Your task to perform on an android device: see creations saved in the google photos Image 0: 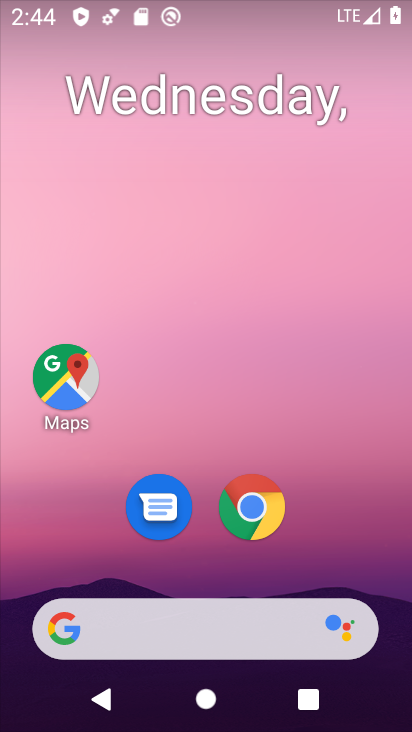
Step 0: drag from (302, 559) to (281, 83)
Your task to perform on an android device: see creations saved in the google photos Image 1: 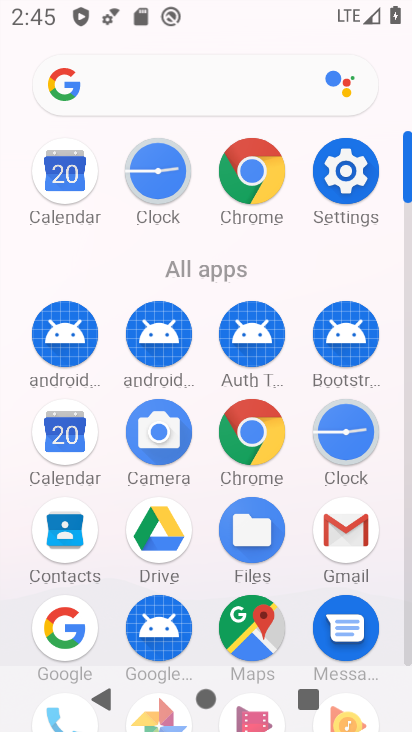
Step 1: drag from (196, 660) to (193, 376)
Your task to perform on an android device: see creations saved in the google photos Image 2: 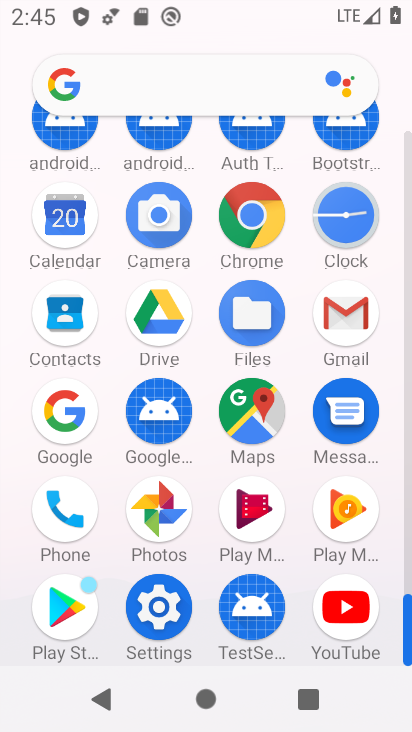
Step 2: click (153, 501)
Your task to perform on an android device: see creations saved in the google photos Image 3: 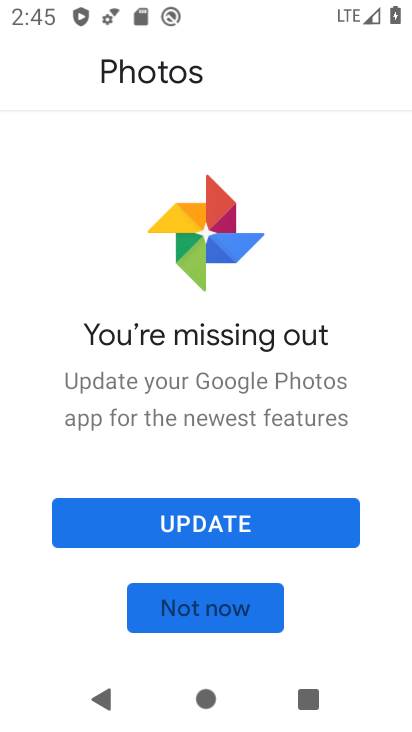
Step 3: click (215, 529)
Your task to perform on an android device: see creations saved in the google photos Image 4: 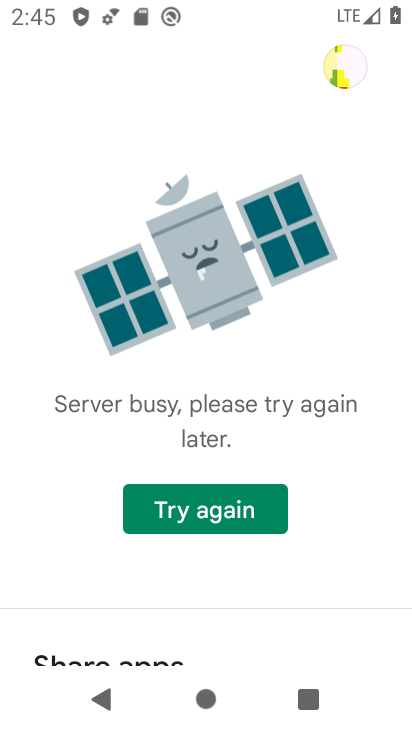
Step 4: click (238, 505)
Your task to perform on an android device: see creations saved in the google photos Image 5: 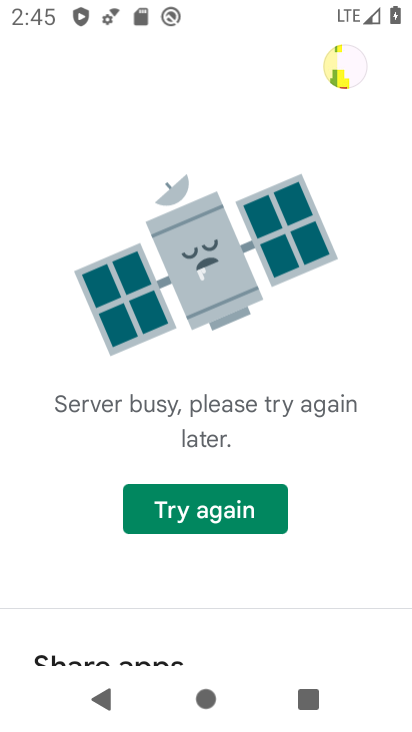
Step 5: press back button
Your task to perform on an android device: see creations saved in the google photos Image 6: 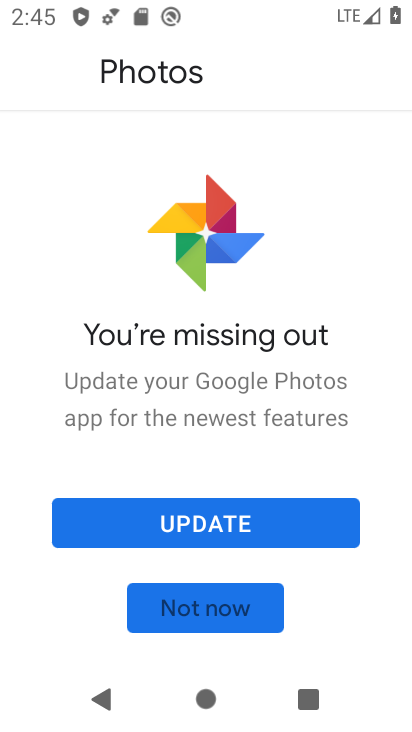
Step 6: click (245, 616)
Your task to perform on an android device: see creations saved in the google photos Image 7: 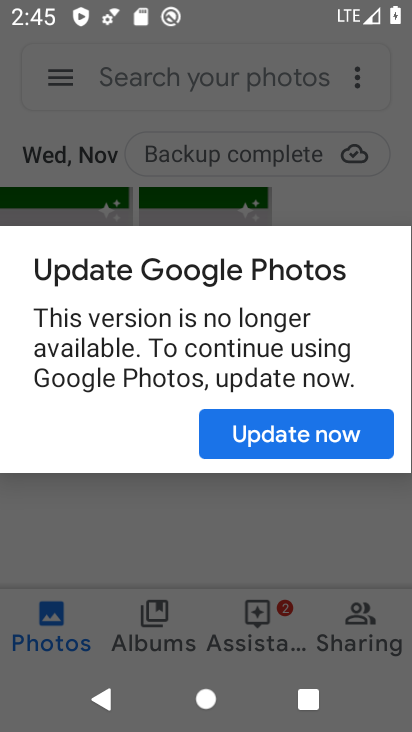
Step 7: click (308, 509)
Your task to perform on an android device: see creations saved in the google photos Image 8: 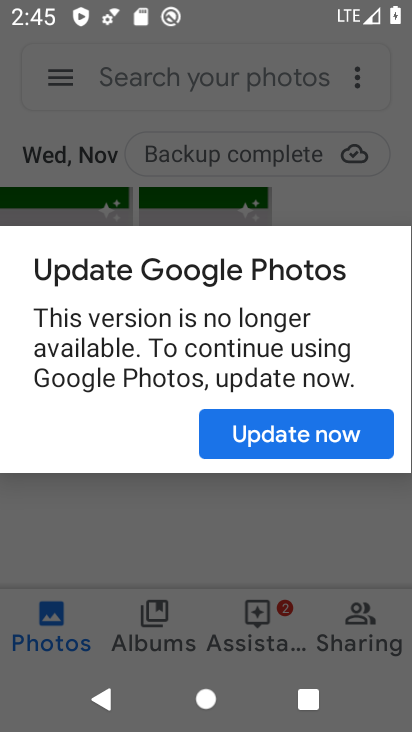
Step 8: click (310, 510)
Your task to perform on an android device: see creations saved in the google photos Image 9: 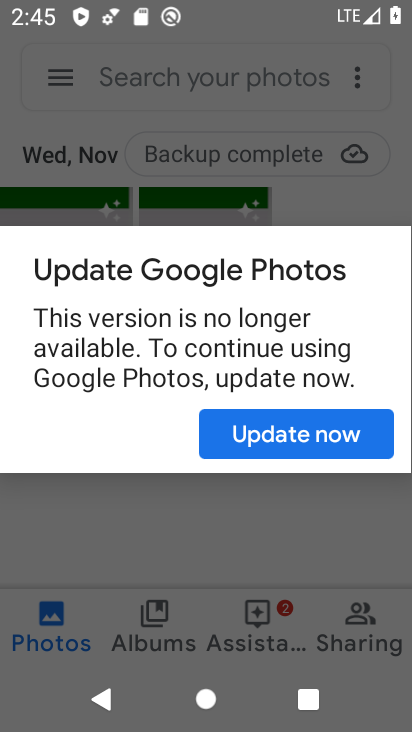
Step 9: click (308, 209)
Your task to perform on an android device: see creations saved in the google photos Image 10: 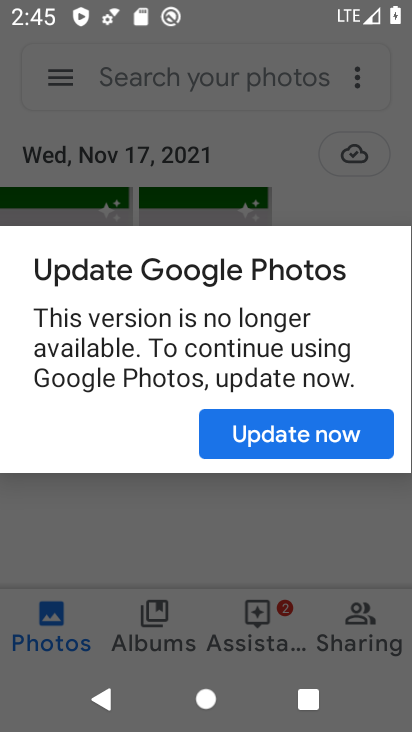
Step 10: click (302, 531)
Your task to perform on an android device: see creations saved in the google photos Image 11: 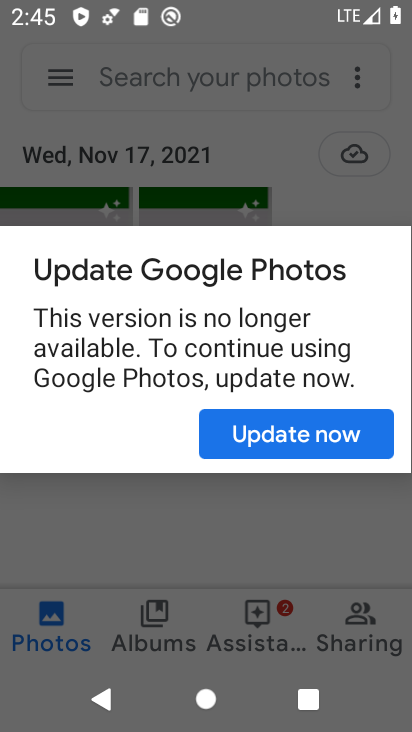
Step 11: click (311, 432)
Your task to perform on an android device: see creations saved in the google photos Image 12: 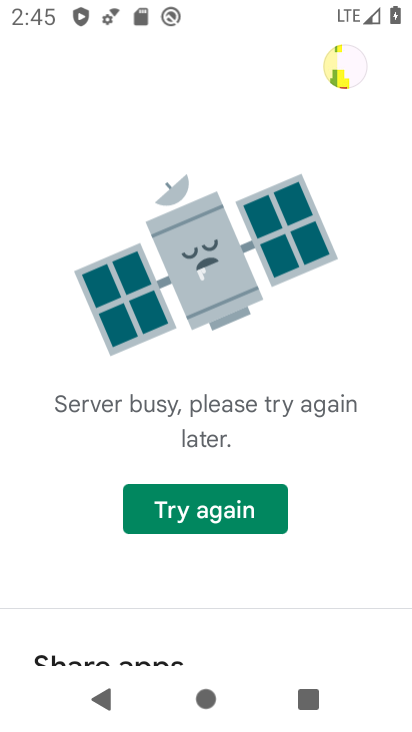
Step 12: click (241, 515)
Your task to perform on an android device: see creations saved in the google photos Image 13: 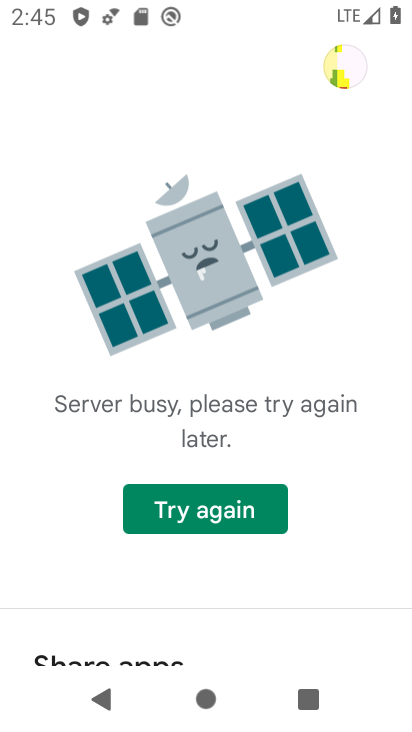
Step 13: press back button
Your task to perform on an android device: see creations saved in the google photos Image 14: 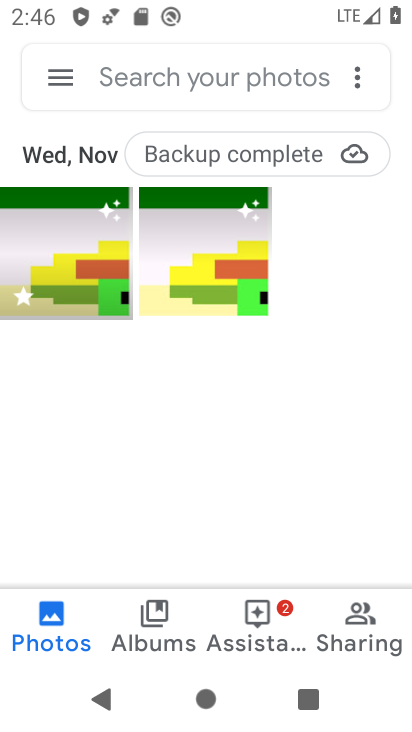
Step 14: click (218, 72)
Your task to perform on an android device: see creations saved in the google photos Image 15: 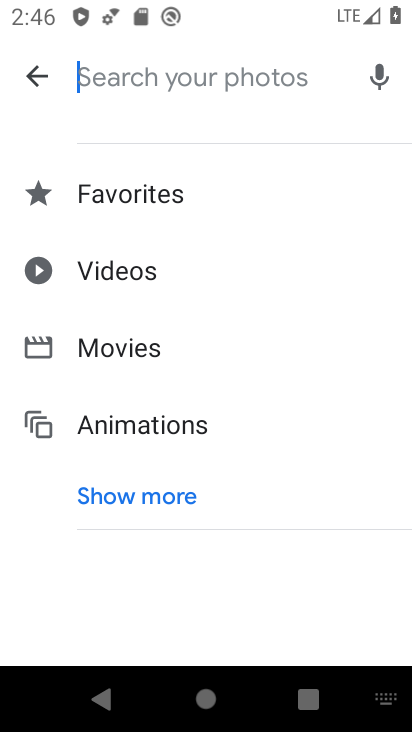
Step 15: click (121, 503)
Your task to perform on an android device: see creations saved in the google photos Image 16: 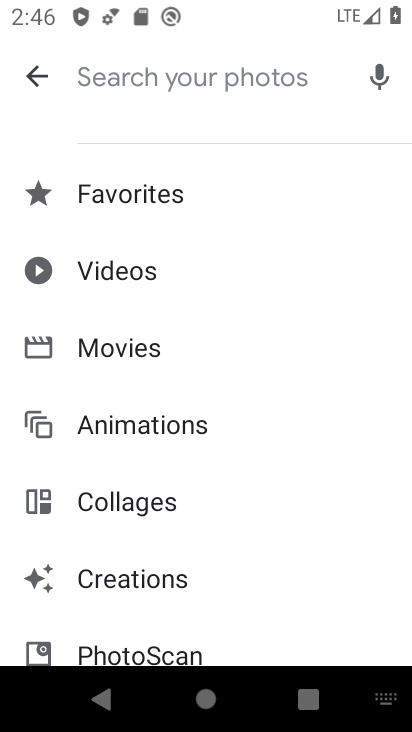
Step 16: click (152, 574)
Your task to perform on an android device: see creations saved in the google photos Image 17: 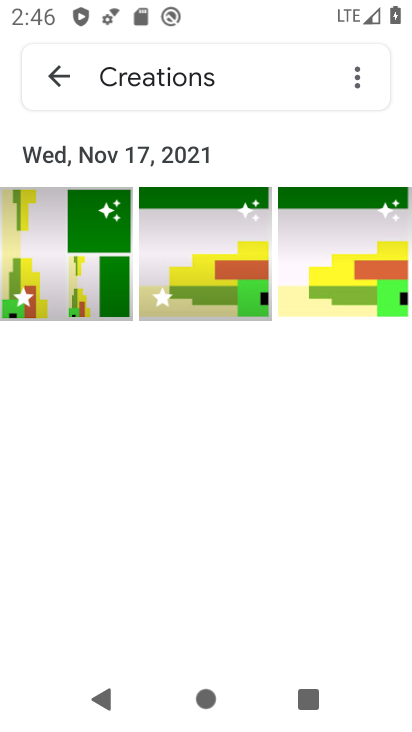
Step 17: task complete